Your task to perform on an android device: Open the stopwatch Image 0: 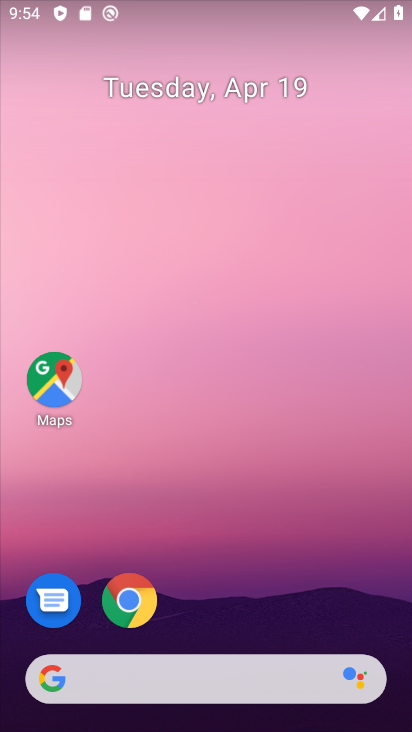
Step 0: click (219, 514)
Your task to perform on an android device: Open the stopwatch Image 1: 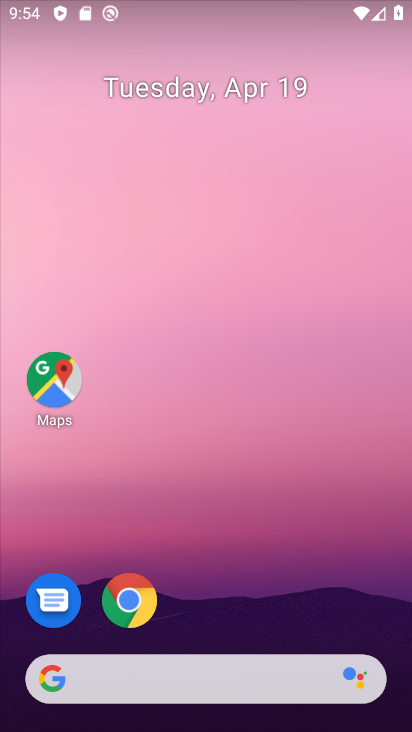
Step 1: drag from (215, 506) to (298, 81)
Your task to perform on an android device: Open the stopwatch Image 2: 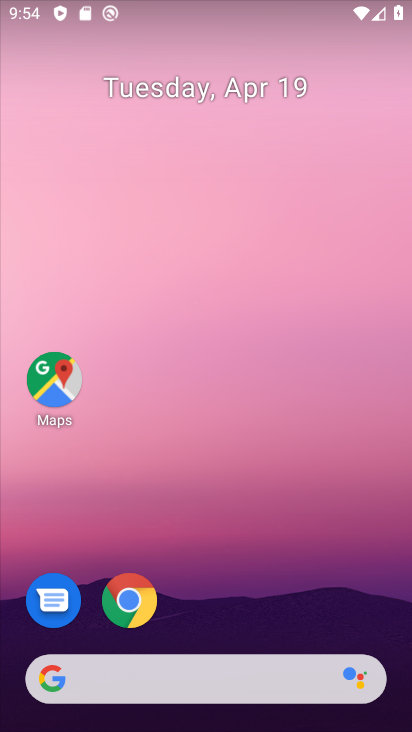
Step 2: drag from (260, 126) to (265, 0)
Your task to perform on an android device: Open the stopwatch Image 3: 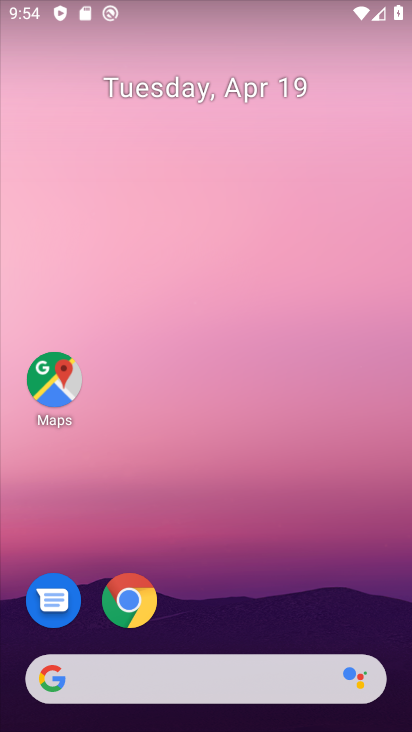
Step 3: drag from (214, 445) to (282, 35)
Your task to perform on an android device: Open the stopwatch Image 4: 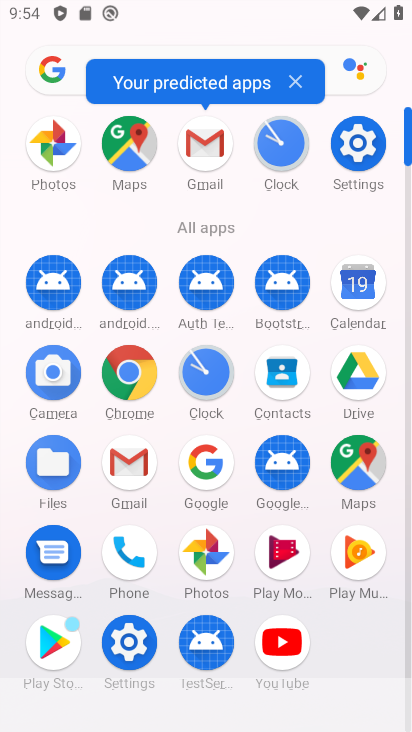
Step 4: click (198, 381)
Your task to perform on an android device: Open the stopwatch Image 5: 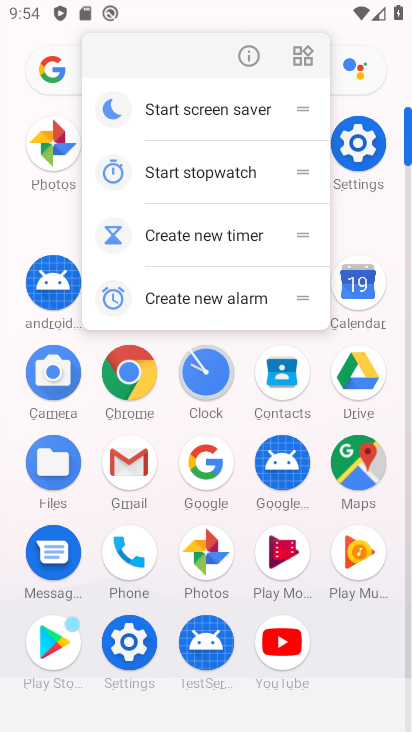
Step 5: click (203, 379)
Your task to perform on an android device: Open the stopwatch Image 6: 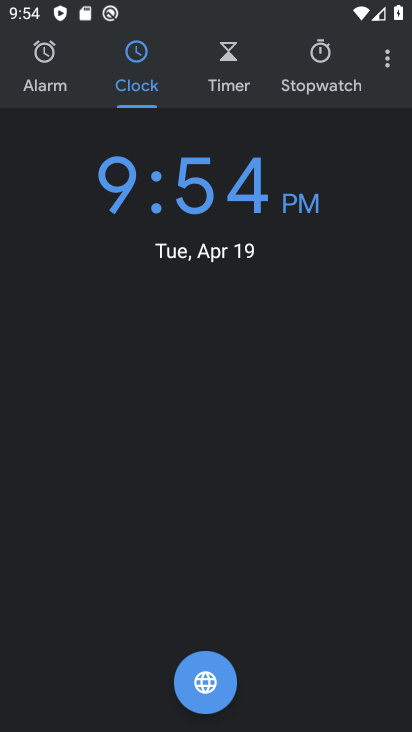
Step 6: click (326, 66)
Your task to perform on an android device: Open the stopwatch Image 7: 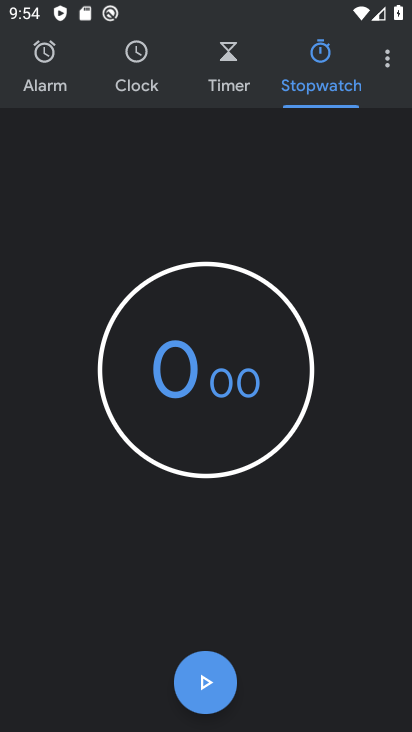
Step 7: task complete